Your task to perform on an android device: toggle location history Image 0: 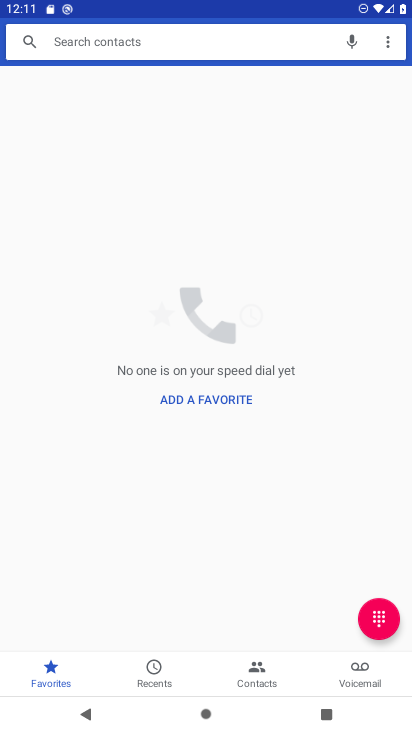
Step 0: press home button
Your task to perform on an android device: toggle location history Image 1: 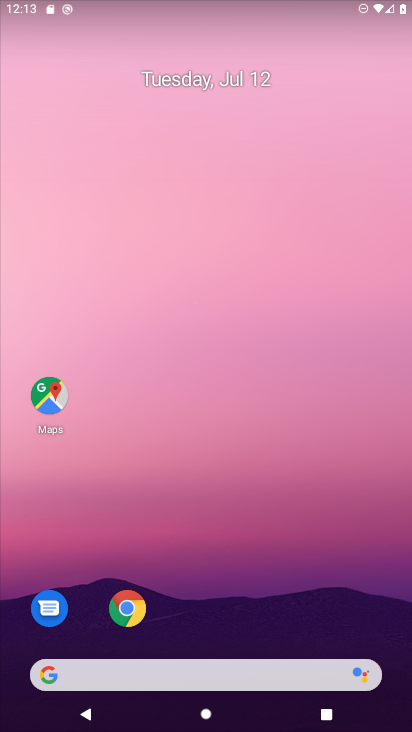
Step 1: drag from (176, 623) to (253, 358)
Your task to perform on an android device: toggle location history Image 2: 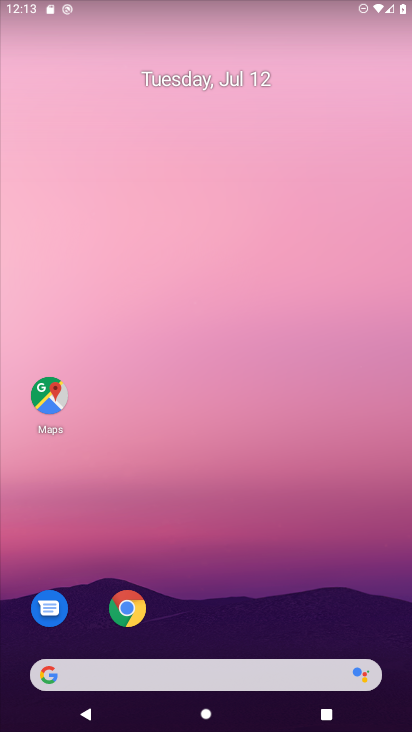
Step 2: drag from (204, 646) to (410, 525)
Your task to perform on an android device: toggle location history Image 3: 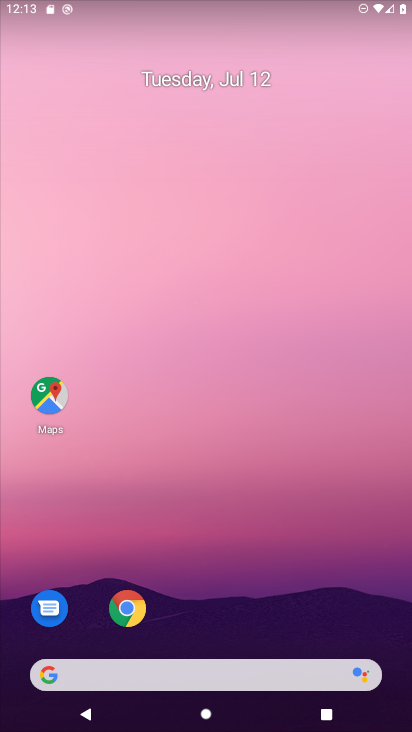
Step 3: drag from (191, 640) to (160, 13)
Your task to perform on an android device: toggle location history Image 4: 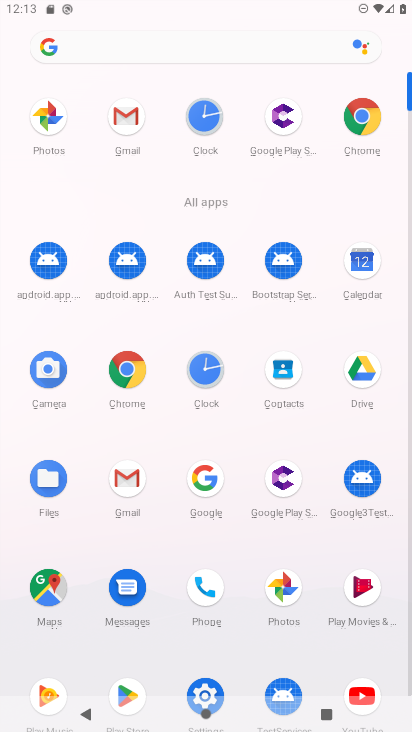
Step 4: click (213, 678)
Your task to perform on an android device: toggle location history Image 5: 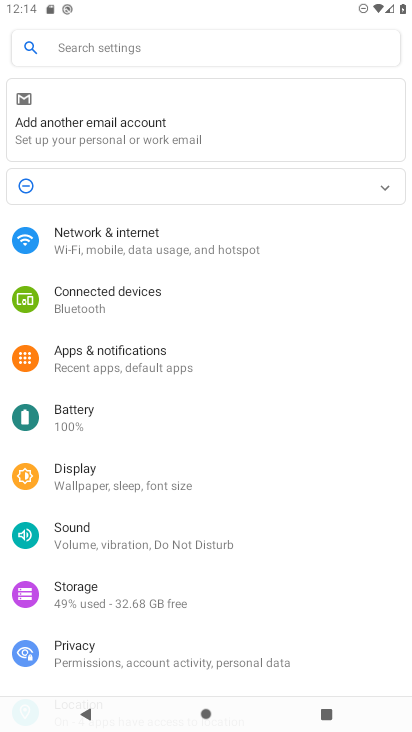
Step 5: drag from (134, 605) to (60, 145)
Your task to perform on an android device: toggle location history Image 6: 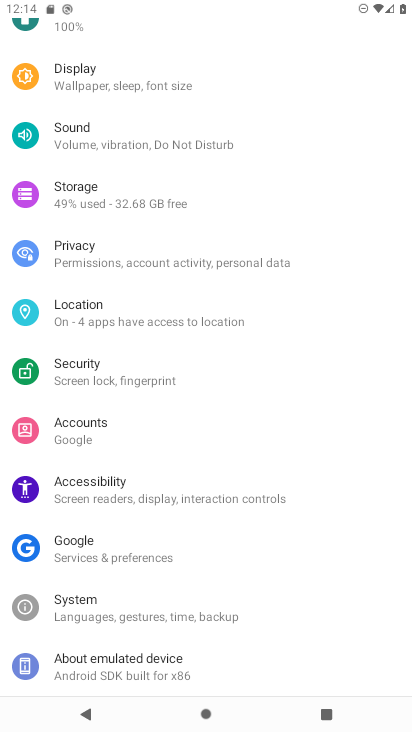
Step 6: click (59, 323)
Your task to perform on an android device: toggle location history Image 7: 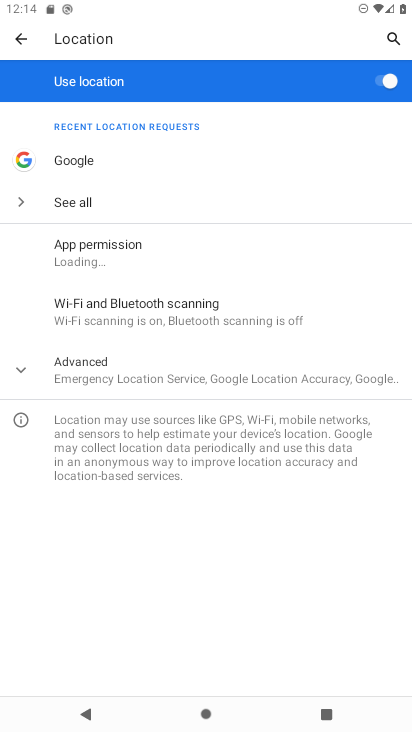
Step 7: click (108, 355)
Your task to perform on an android device: toggle location history Image 8: 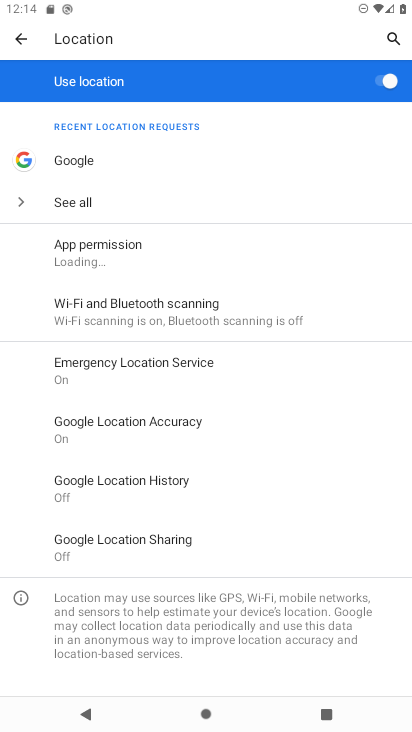
Step 8: click (163, 470)
Your task to perform on an android device: toggle location history Image 9: 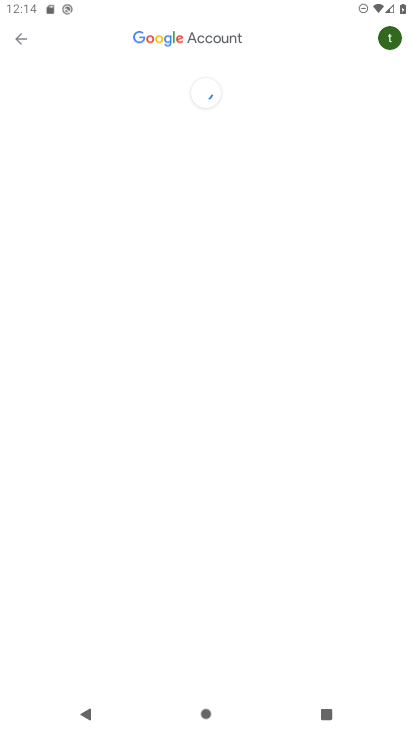
Step 9: drag from (287, 566) to (273, 373)
Your task to perform on an android device: toggle location history Image 10: 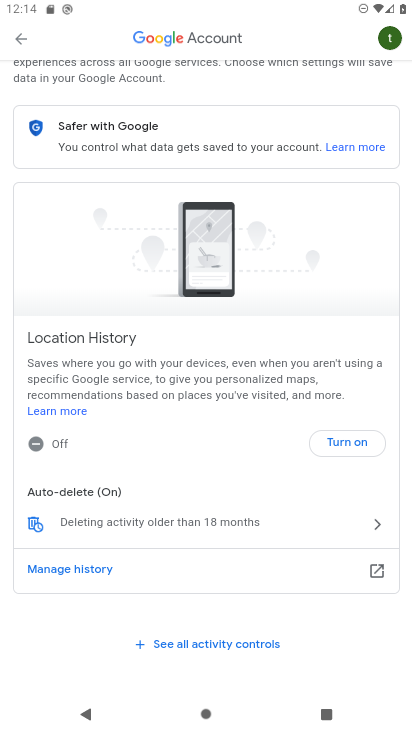
Step 10: click (344, 435)
Your task to perform on an android device: toggle location history Image 11: 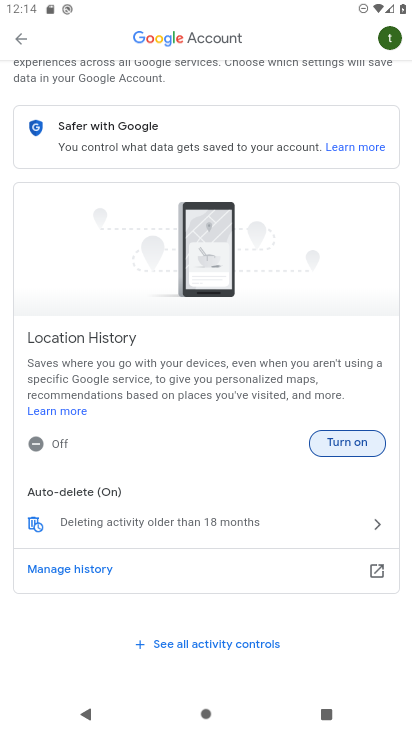
Step 11: click (347, 440)
Your task to perform on an android device: toggle location history Image 12: 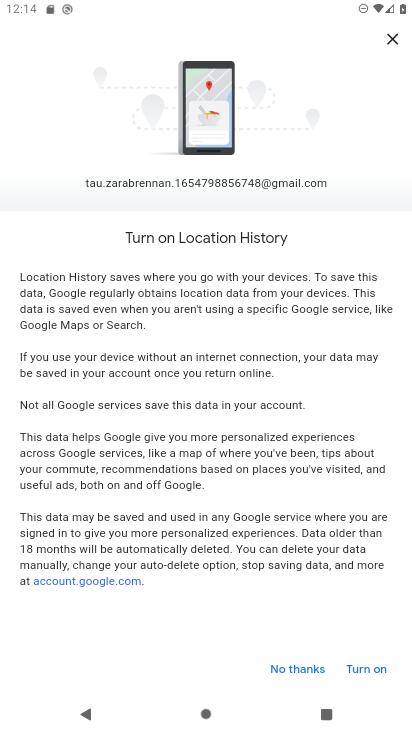
Step 12: click (373, 668)
Your task to perform on an android device: toggle location history Image 13: 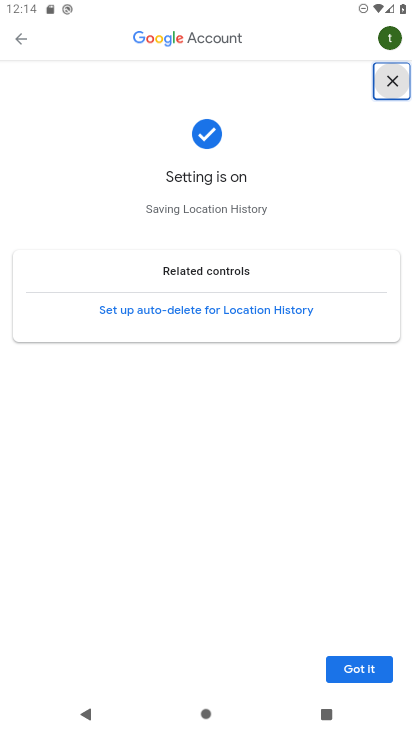
Step 13: click (368, 664)
Your task to perform on an android device: toggle location history Image 14: 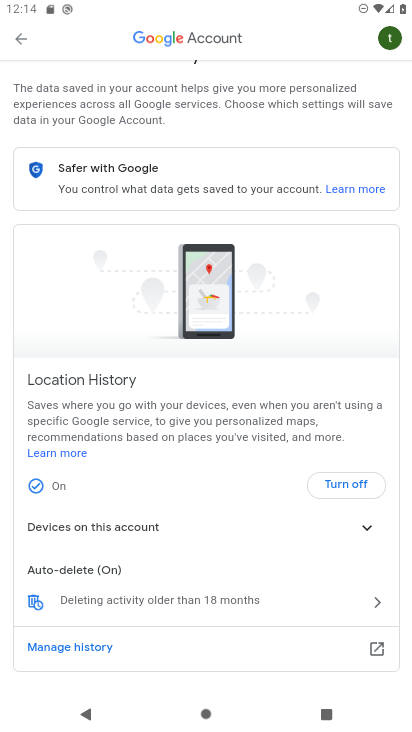
Step 14: click (369, 664)
Your task to perform on an android device: toggle location history Image 15: 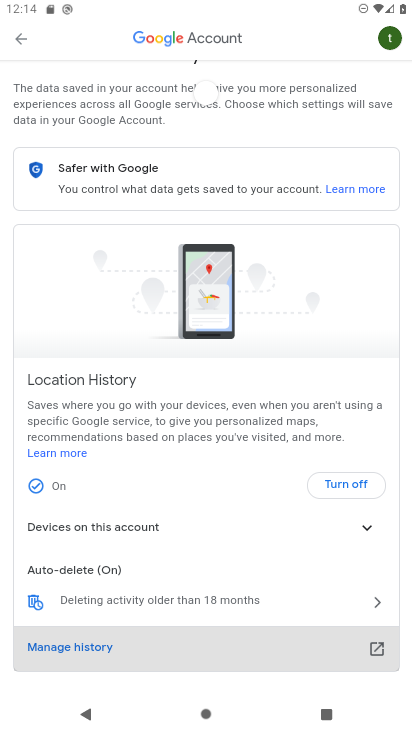
Step 15: task complete